Your task to perform on an android device: Open Google Chrome Image 0: 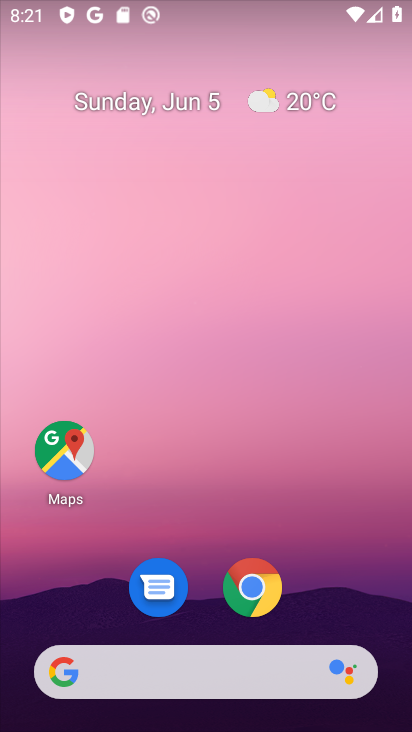
Step 0: click (263, 585)
Your task to perform on an android device: Open Google Chrome Image 1: 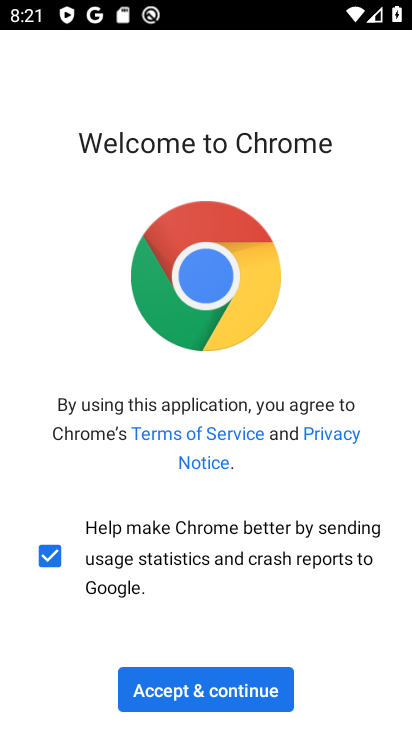
Step 1: click (166, 680)
Your task to perform on an android device: Open Google Chrome Image 2: 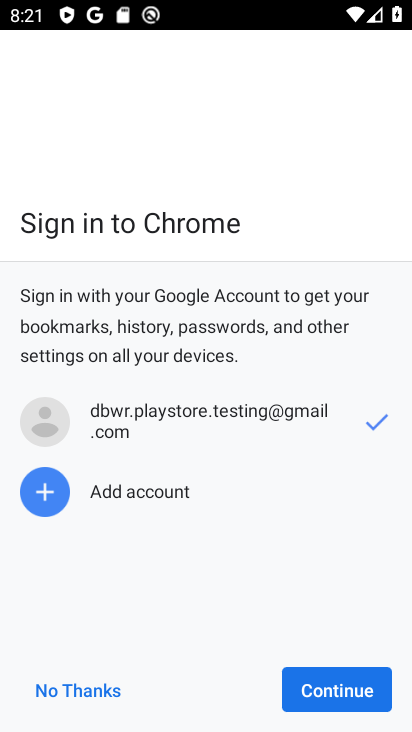
Step 2: click (290, 681)
Your task to perform on an android device: Open Google Chrome Image 3: 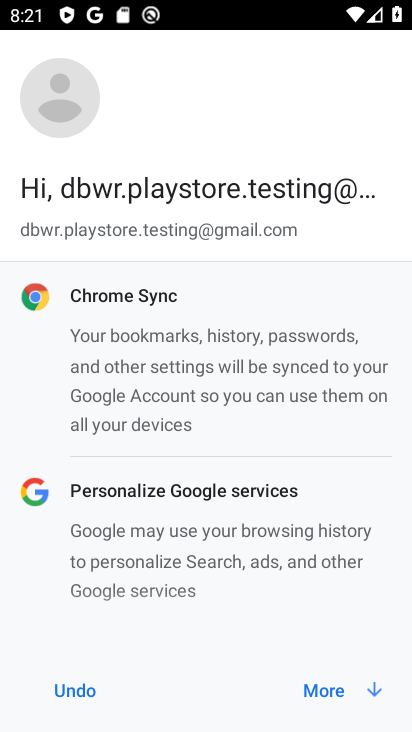
Step 3: click (327, 693)
Your task to perform on an android device: Open Google Chrome Image 4: 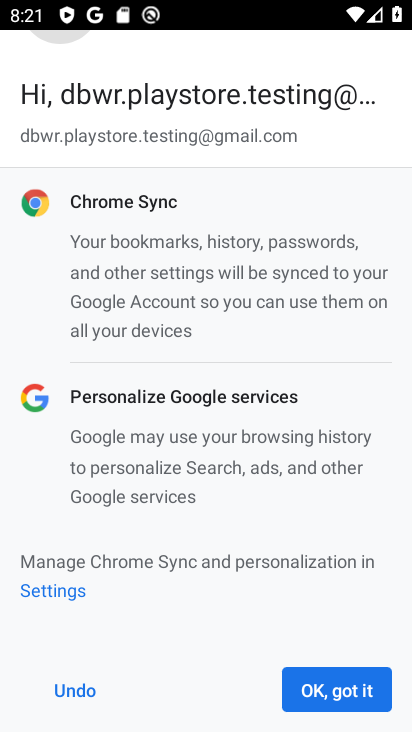
Step 4: click (327, 693)
Your task to perform on an android device: Open Google Chrome Image 5: 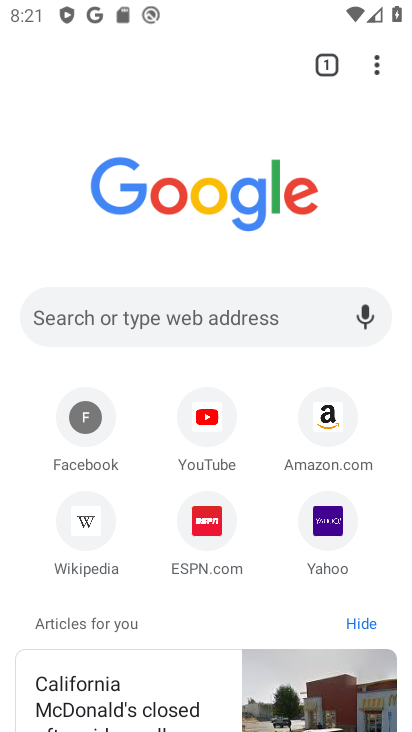
Step 5: task complete